Your task to perform on an android device: See recent photos Image 0: 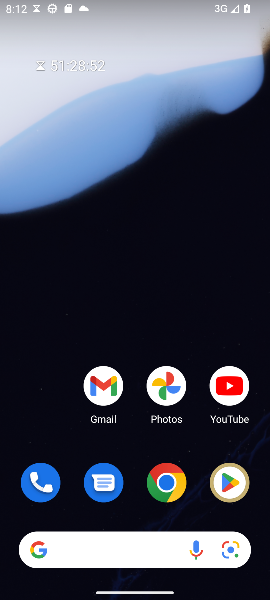
Step 0: drag from (152, 501) to (268, 263)
Your task to perform on an android device: See recent photos Image 1: 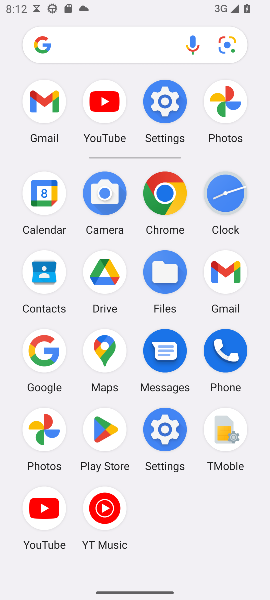
Step 1: click (40, 424)
Your task to perform on an android device: See recent photos Image 2: 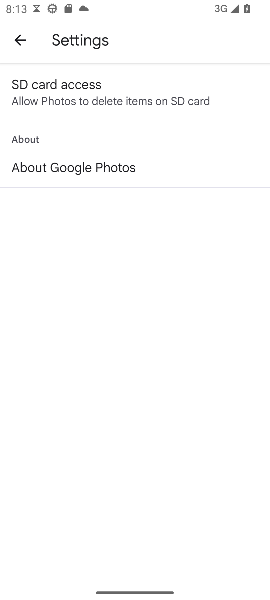
Step 2: click (24, 40)
Your task to perform on an android device: See recent photos Image 3: 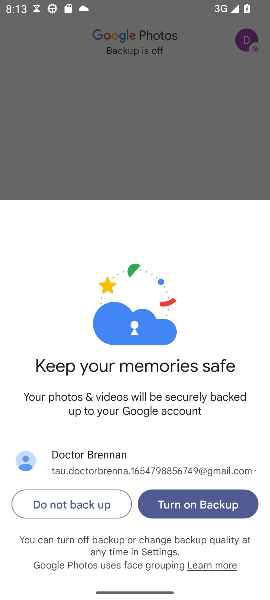
Step 3: click (210, 511)
Your task to perform on an android device: See recent photos Image 4: 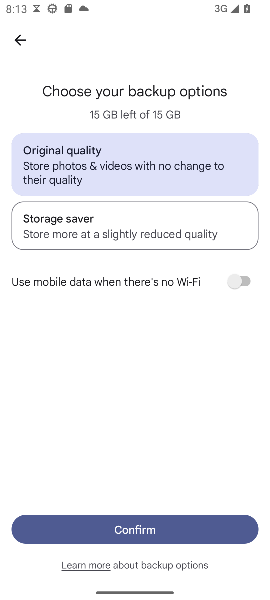
Step 4: click (177, 512)
Your task to perform on an android device: See recent photos Image 5: 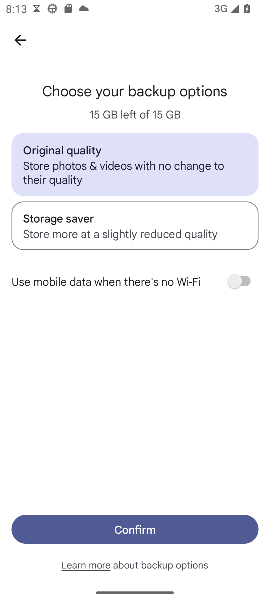
Step 5: click (161, 525)
Your task to perform on an android device: See recent photos Image 6: 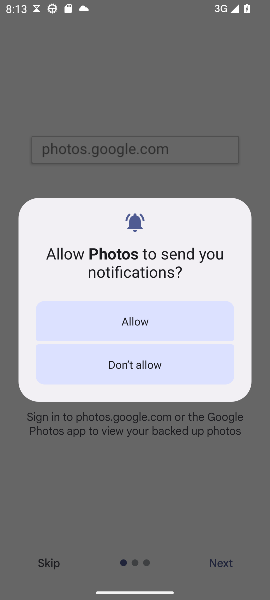
Step 6: click (126, 313)
Your task to perform on an android device: See recent photos Image 7: 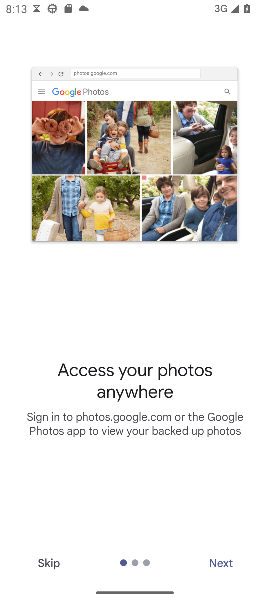
Step 7: click (232, 558)
Your task to perform on an android device: See recent photos Image 8: 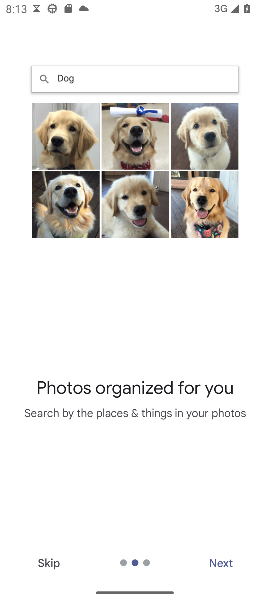
Step 8: click (233, 562)
Your task to perform on an android device: See recent photos Image 9: 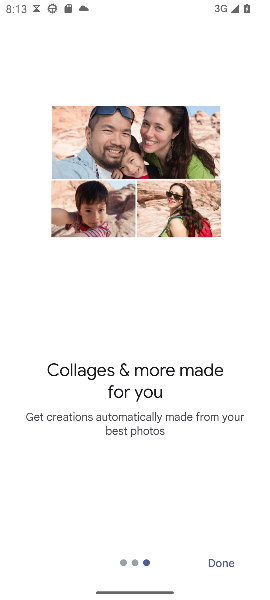
Step 9: click (233, 559)
Your task to perform on an android device: See recent photos Image 10: 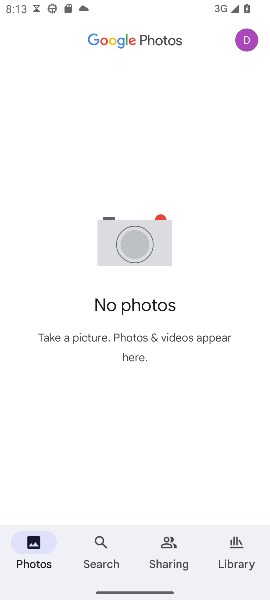
Step 10: task complete